Your task to perform on an android device: remove spam from my inbox in the gmail app Image 0: 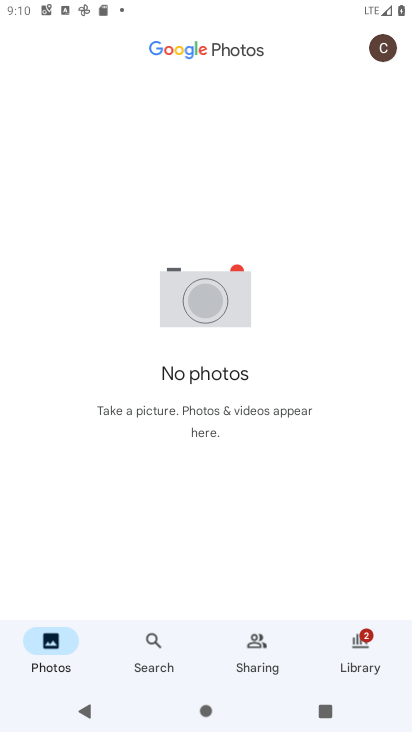
Step 0: press home button
Your task to perform on an android device: remove spam from my inbox in the gmail app Image 1: 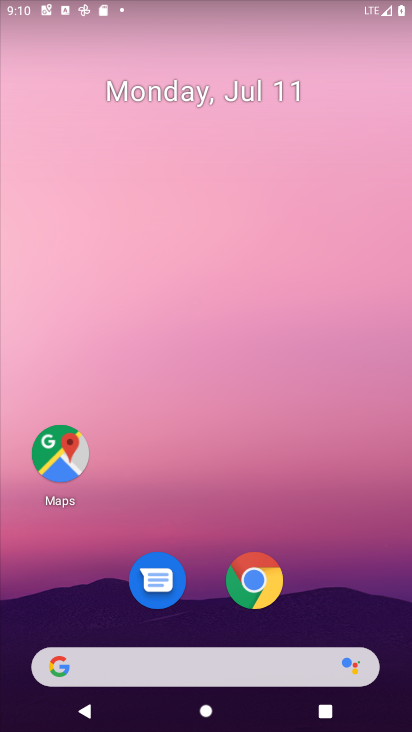
Step 1: drag from (316, 568) to (264, 10)
Your task to perform on an android device: remove spam from my inbox in the gmail app Image 2: 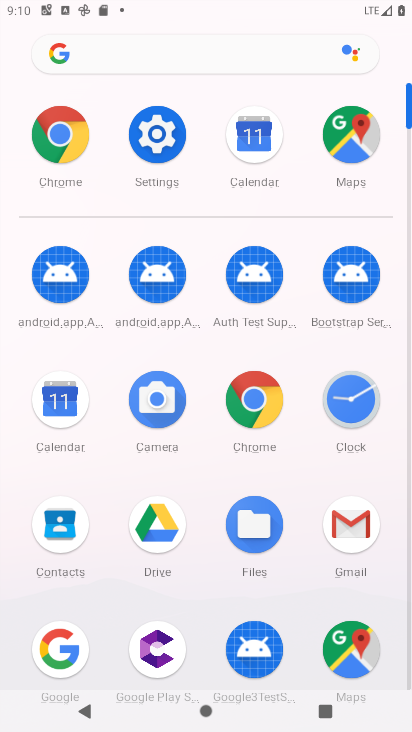
Step 2: click (362, 529)
Your task to perform on an android device: remove spam from my inbox in the gmail app Image 3: 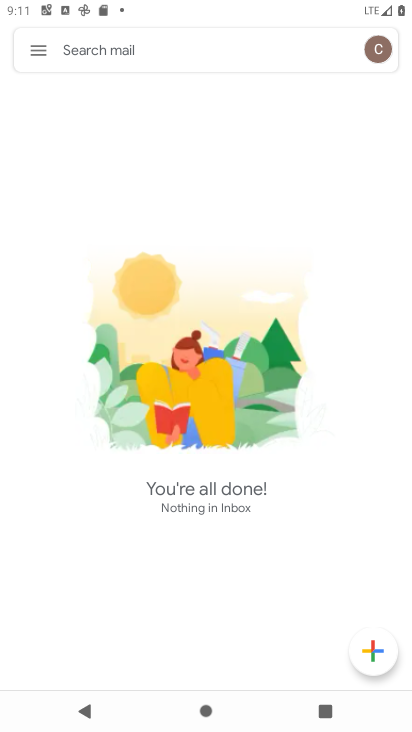
Step 3: task complete